Your task to perform on an android device: change timer sound Image 0: 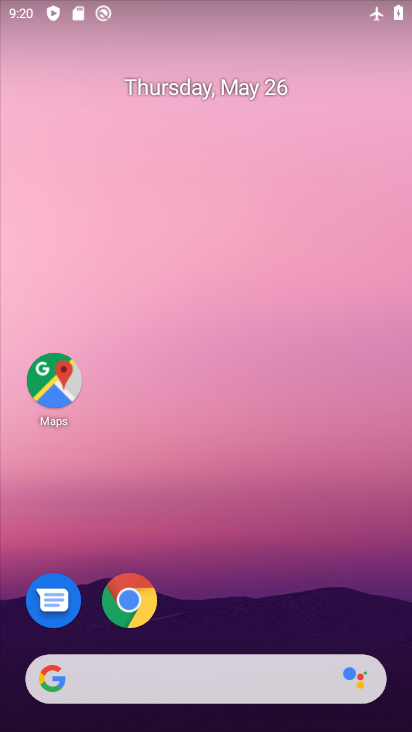
Step 0: drag from (282, 545) to (213, 98)
Your task to perform on an android device: change timer sound Image 1: 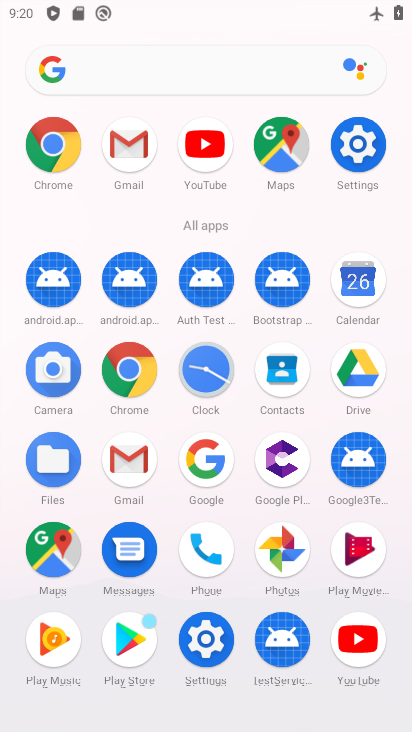
Step 1: click (210, 359)
Your task to perform on an android device: change timer sound Image 2: 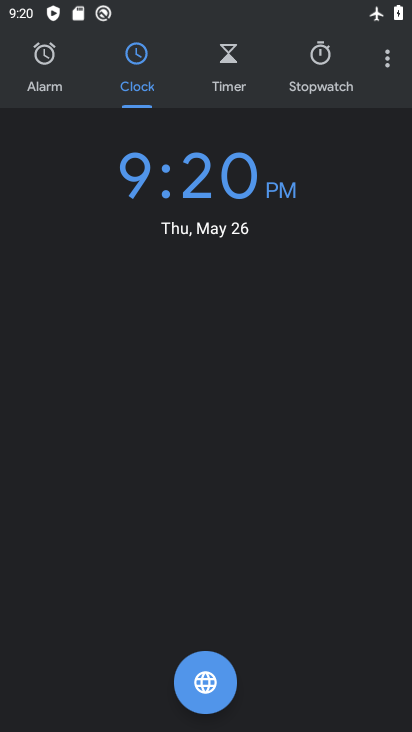
Step 2: click (383, 57)
Your task to perform on an android device: change timer sound Image 3: 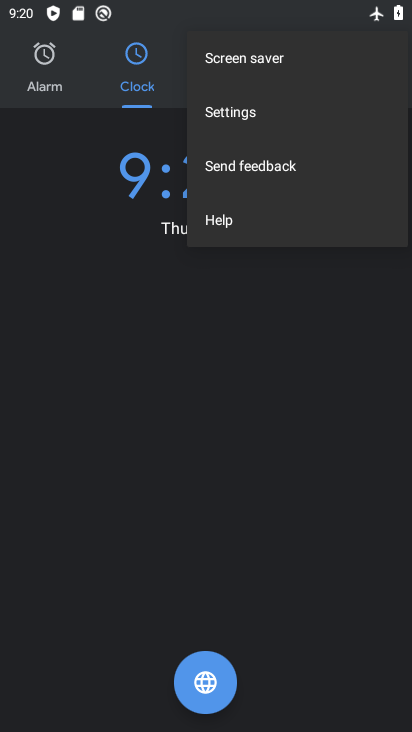
Step 3: click (253, 124)
Your task to perform on an android device: change timer sound Image 4: 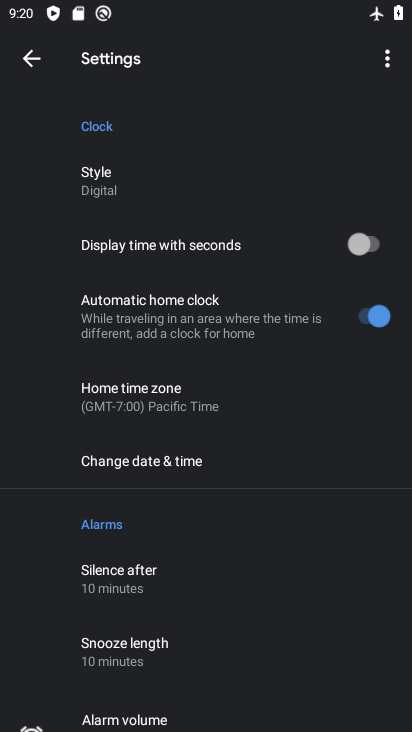
Step 4: drag from (156, 626) to (264, 169)
Your task to perform on an android device: change timer sound Image 5: 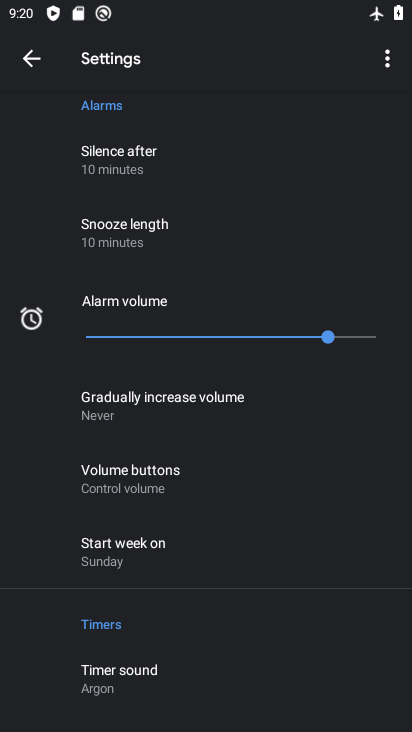
Step 5: click (105, 661)
Your task to perform on an android device: change timer sound Image 6: 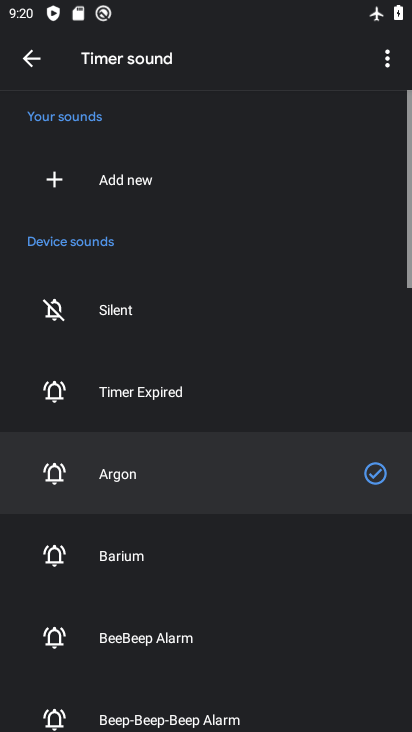
Step 6: click (86, 552)
Your task to perform on an android device: change timer sound Image 7: 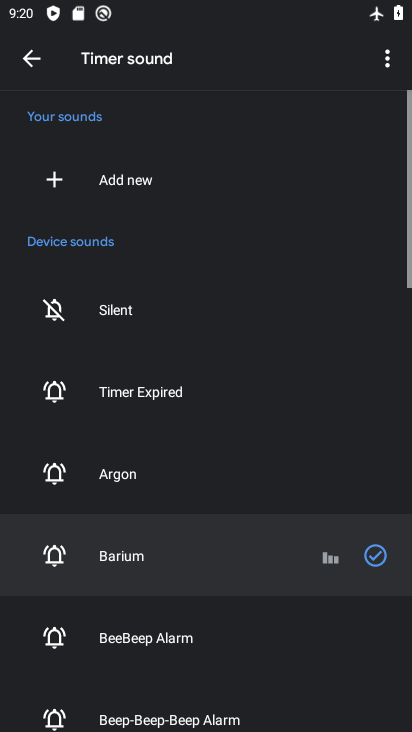
Step 7: task complete